Your task to perform on an android device: Open Chrome and go to settings Image 0: 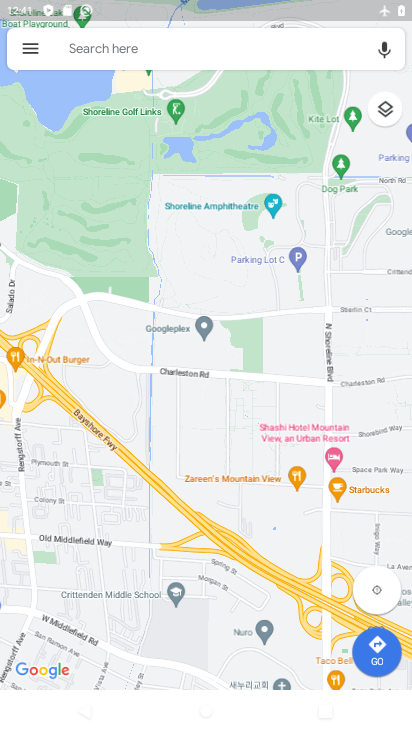
Step 0: press home button
Your task to perform on an android device: Open Chrome and go to settings Image 1: 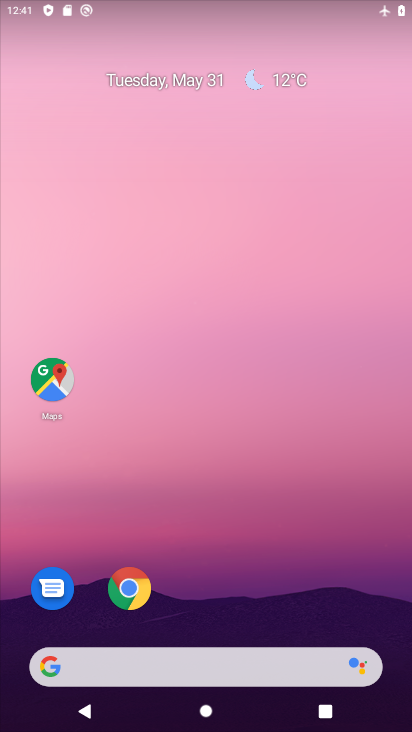
Step 1: click (126, 591)
Your task to perform on an android device: Open Chrome and go to settings Image 2: 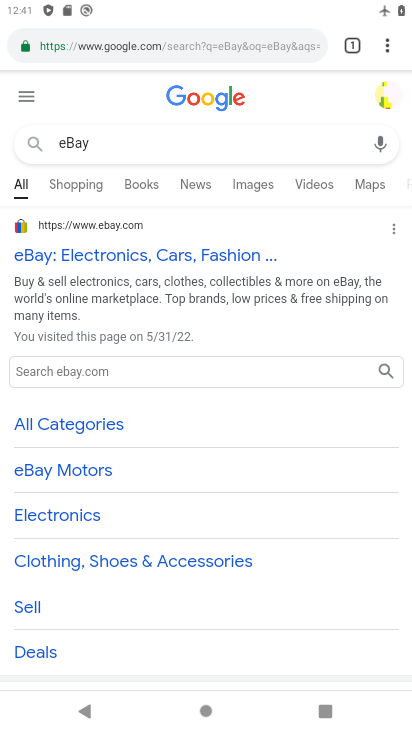
Step 2: click (384, 42)
Your task to perform on an android device: Open Chrome and go to settings Image 3: 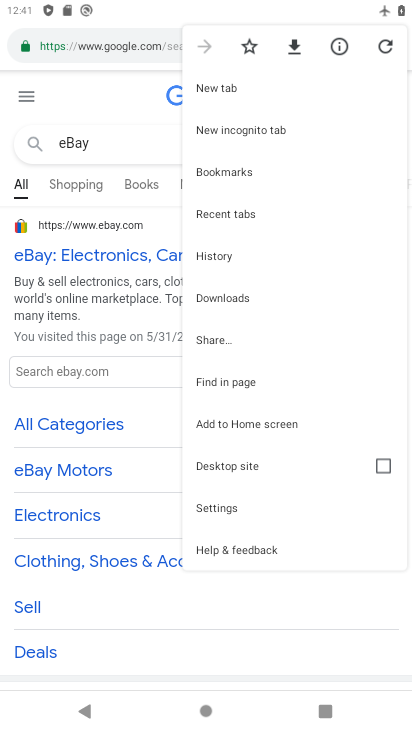
Step 3: click (218, 505)
Your task to perform on an android device: Open Chrome and go to settings Image 4: 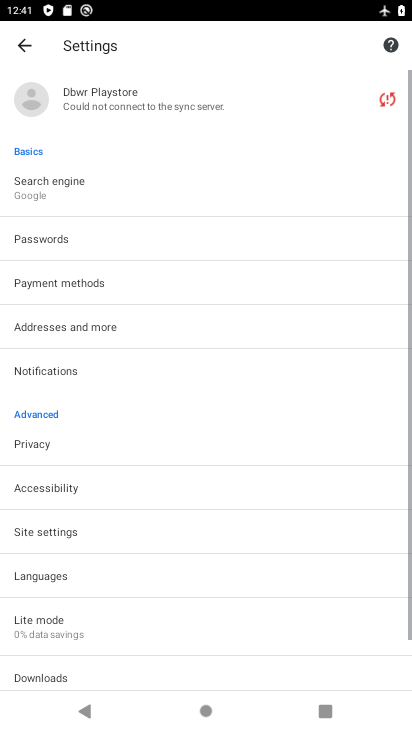
Step 4: task complete